Your task to perform on an android device: Do I have any events today? Image 0: 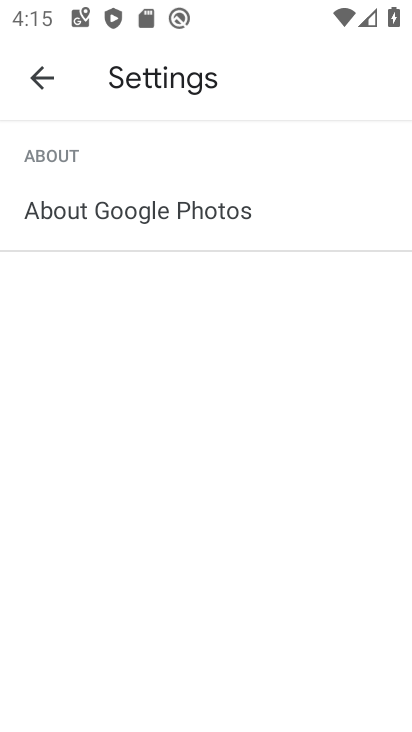
Step 0: press back button
Your task to perform on an android device: Do I have any events today? Image 1: 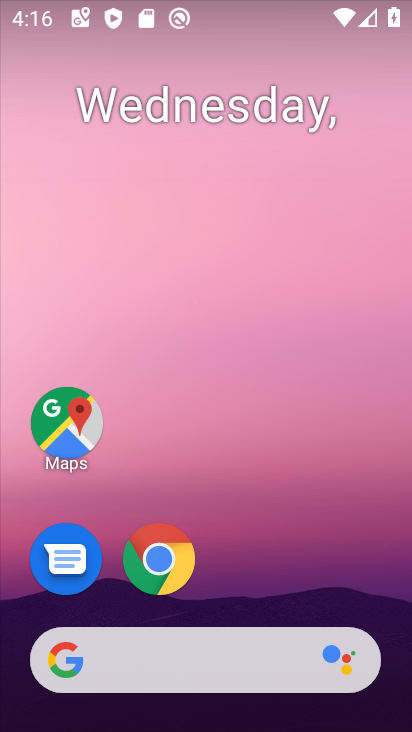
Step 1: click (161, 670)
Your task to perform on an android device: Do I have any events today? Image 2: 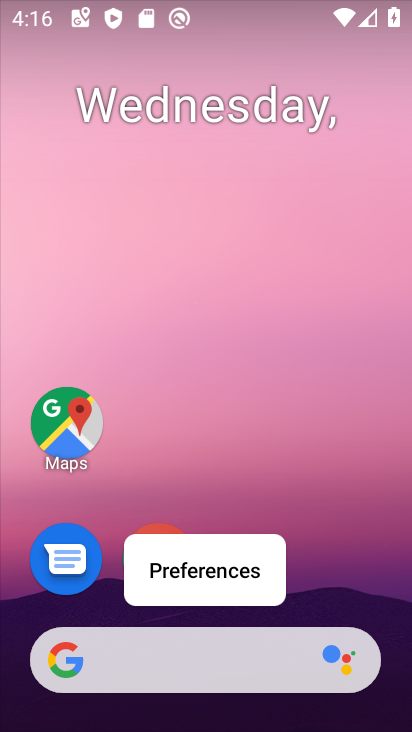
Step 2: click (158, 652)
Your task to perform on an android device: Do I have any events today? Image 3: 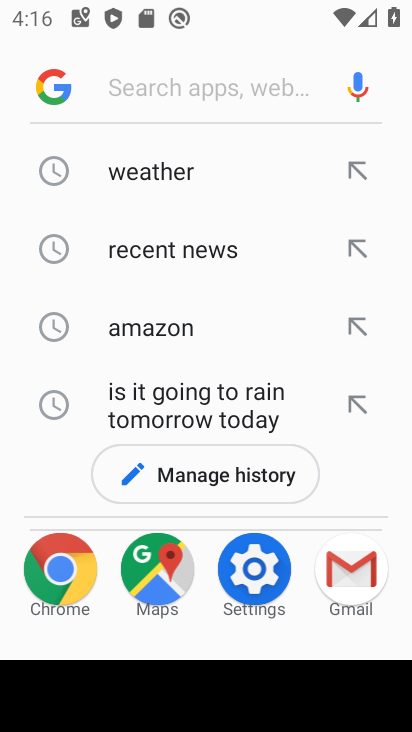
Step 3: press back button
Your task to perform on an android device: Do I have any events today? Image 4: 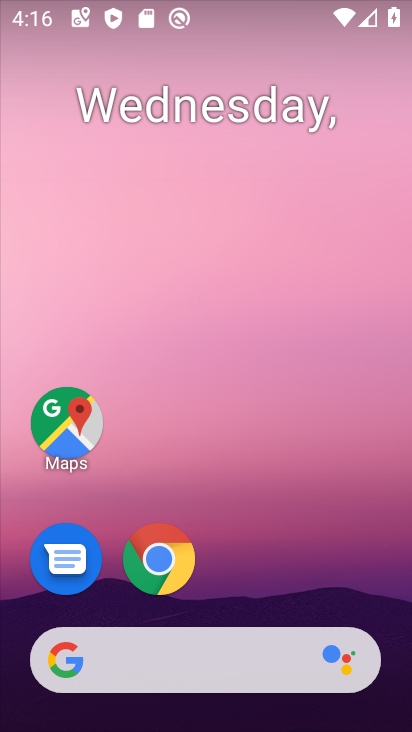
Step 4: drag from (260, 580) to (320, 4)
Your task to perform on an android device: Do I have any events today? Image 5: 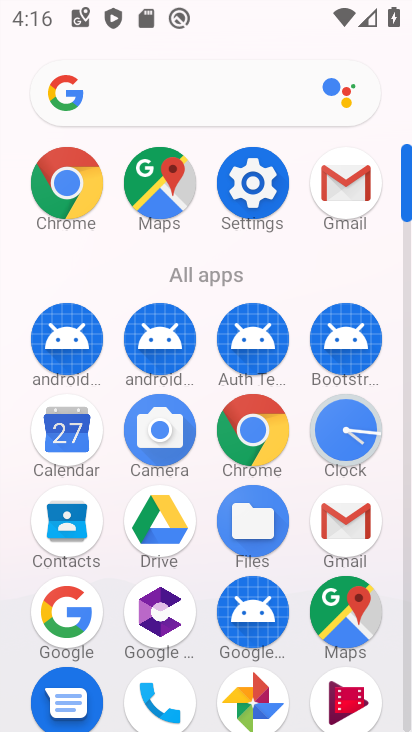
Step 5: click (59, 427)
Your task to perform on an android device: Do I have any events today? Image 6: 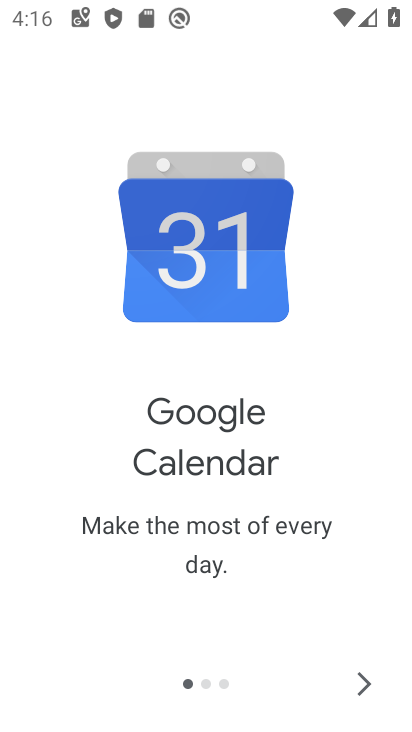
Step 6: click (358, 675)
Your task to perform on an android device: Do I have any events today? Image 7: 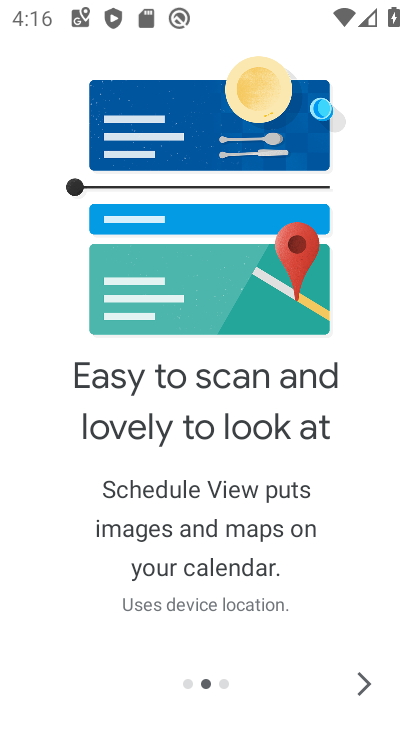
Step 7: click (357, 677)
Your task to perform on an android device: Do I have any events today? Image 8: 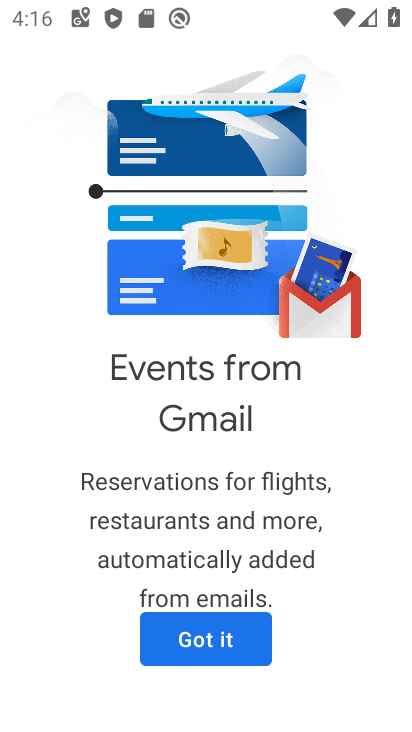
Step 8: click (185, 623)
Your task to perform on an android device: Do I have any events today? Image 9: 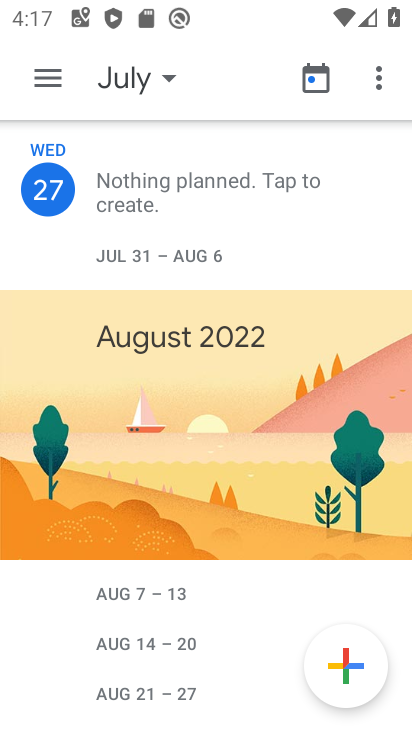
Step 9: task complete